Your task to perform on an android device: Open calendar and show me the fourth week of next month Image 0: 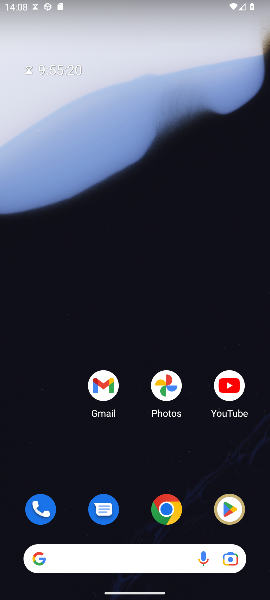
Step 0: press home button
Your task to perform on an android device: Open calendar and show me the fourth week of next month Image 1: 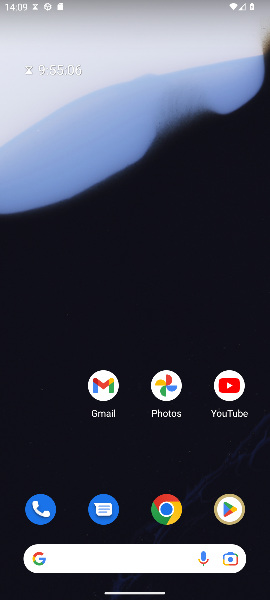
Step 1: drag from (147, 526) to (140, 149)
Your task to perform on an android device: Open calendar and show me the fourth week of next month Image 2: 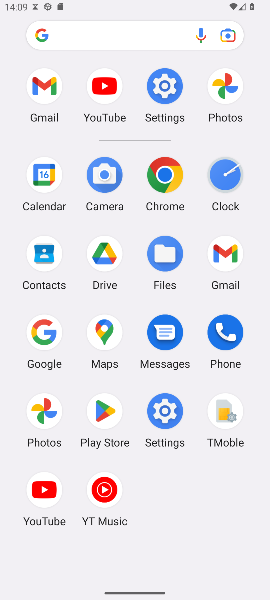
Step 2: click (46, 180)
Your task to perform on an android device: Open calendar and show me the fourth week of next month Image 3: 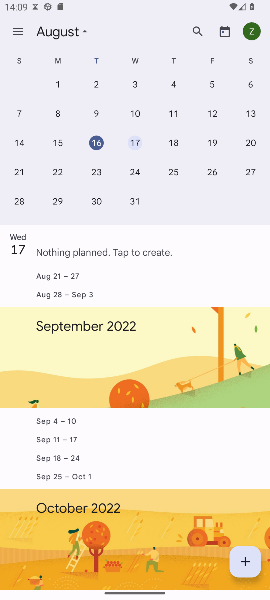
Step 3: drag from (182, 108) to (6, 96)
Your task to perform on an android device: Open calendar and show me the fourth week of next month Image 4: 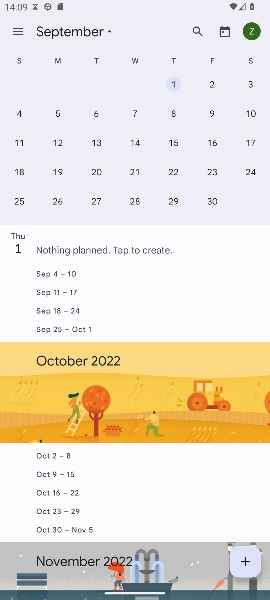
Step 4: click (134, 176)
Your task to perform on an android device: Open calendar and show me the fourth week of next month Image 5: 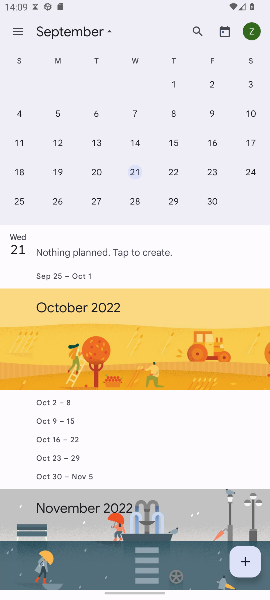
Step 5: click (176, 174)
Your task to perform on an android device: Open calendar and show me the fourth week of next month Image 6: 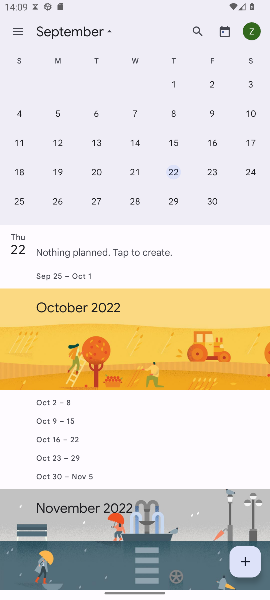
Step 6: click (212, 166)
Your task to perform on an android device: Open calendar and show me the fourth week of next month Image 7: 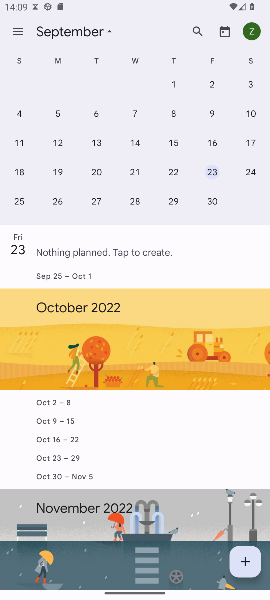
Step 7: click (247, 184)
Your task to perform on an android device: Open calendar and show me the fourth week of next month Image 8: 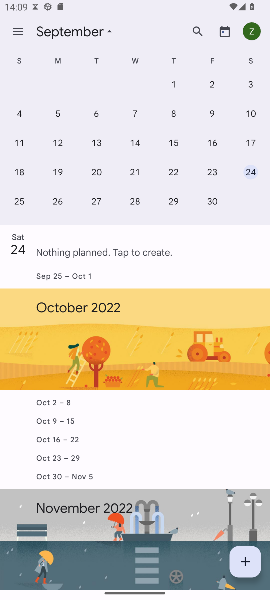
Step 8: click (24, 206)
Your task to perform on an android device: Open calendar and show me the fourth week of next month Image 9: 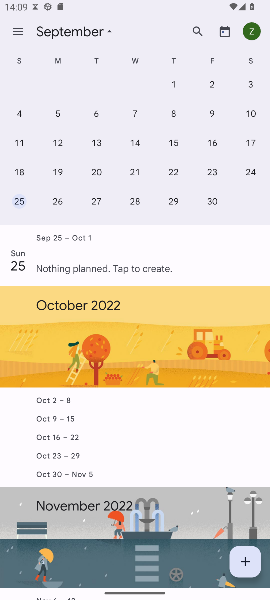
Step 9: task complete